Your task to perform on an android device: clear history in the chrome app Image 0: 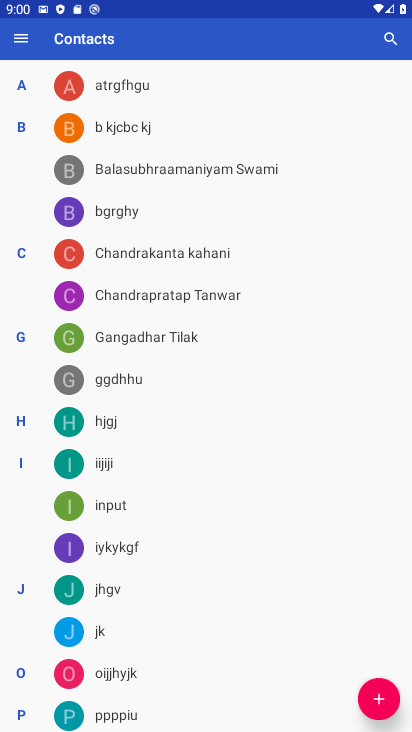
Step 0: press home button
Your task to perform on an android device: clear history in the chrome app Image 1: 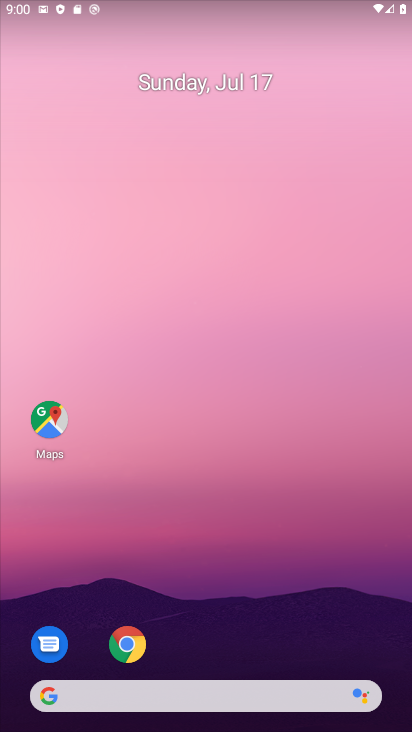
Step 1: drag from (206, 663) to (406, 596)
Your task to perform on an android device: clear history in the chrome app Image 2: 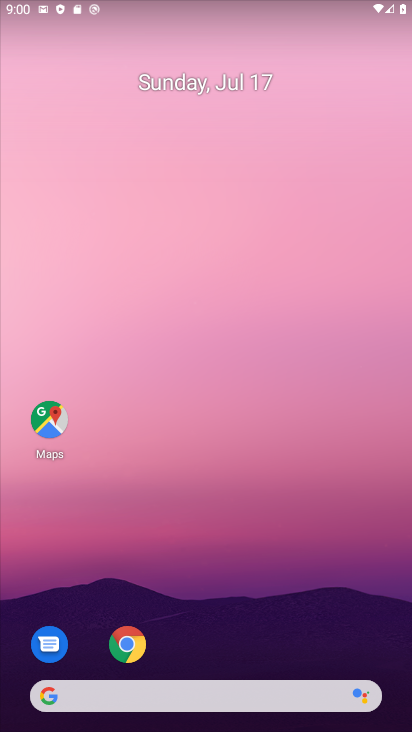
Step 2: drag from (166, 669) to (289, 375)
Your task to perform on an android device: clear history in the chrome app Image 3: 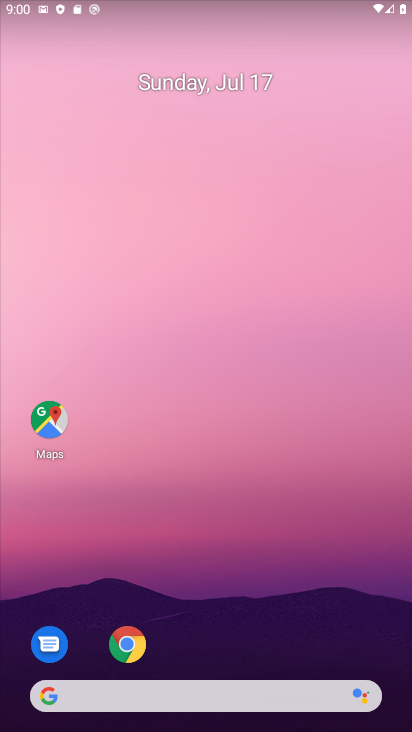
Step 3: click (133, 638)
Your task to perform on an android device: clear history in the chrome app Image 4: 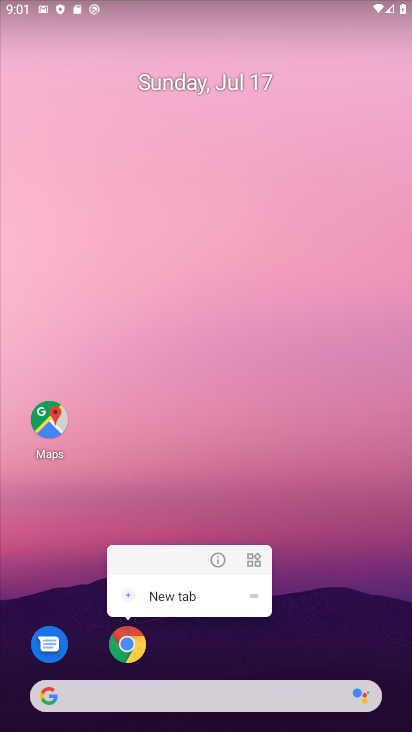
Step 4: click (233, 664)
Your task to perform on an android device: clear history in the chrome app Image 5: 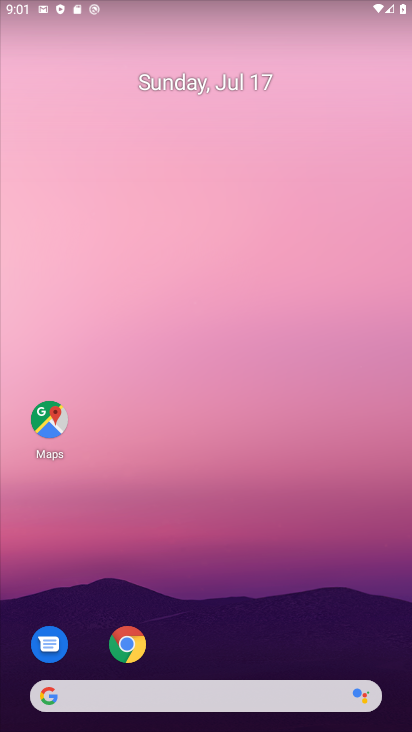
Step 5: drag from (233, 664) to (174, 50)
Your task to perform on an android device: clear history in the chrome app Image 6: 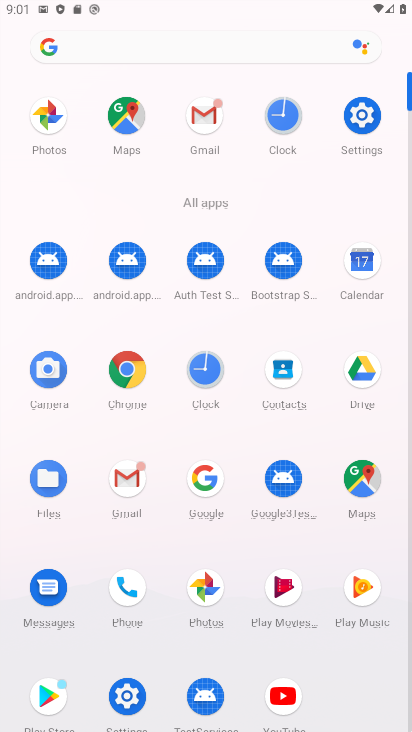
Step 6: click (110, 387)
Your task to perform on an android device: clear history in the chrome app Image 7: 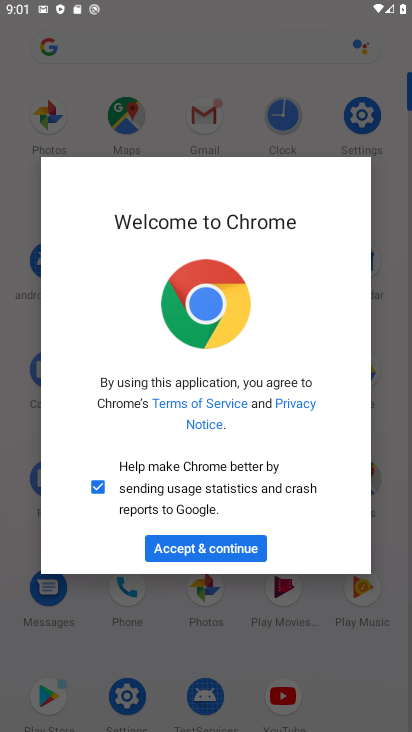
Step 7: click (166, 553)
Your task to perform on an android device: clear history in the chrome app Image 8: 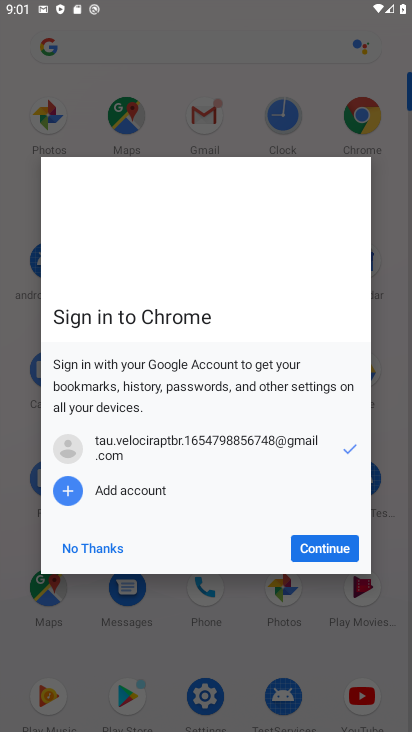
Step 8: click (327, 548)
Your task to perform on an android device: clear history in the chrome app Image 9: 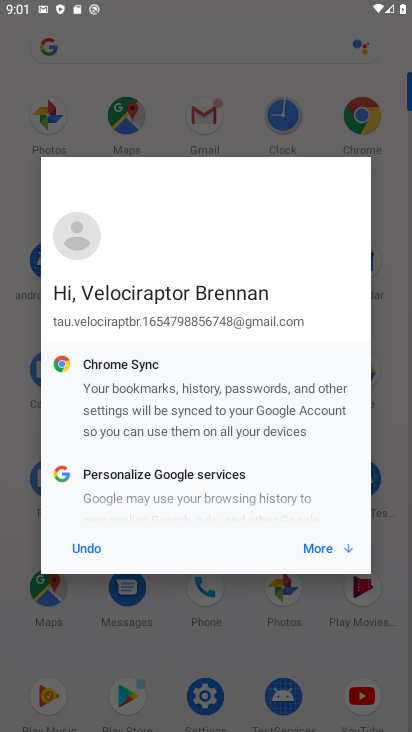
Step 9: click (311, 554)
Your task to perform on an android device: clear history in the chrome app Image 10: 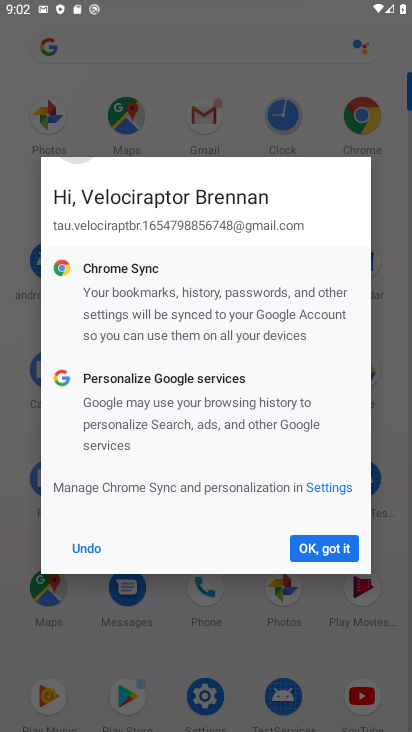
Step 10: click (338, 559)
Your task to perform on an android device: clear history in the chrome app Image 11: 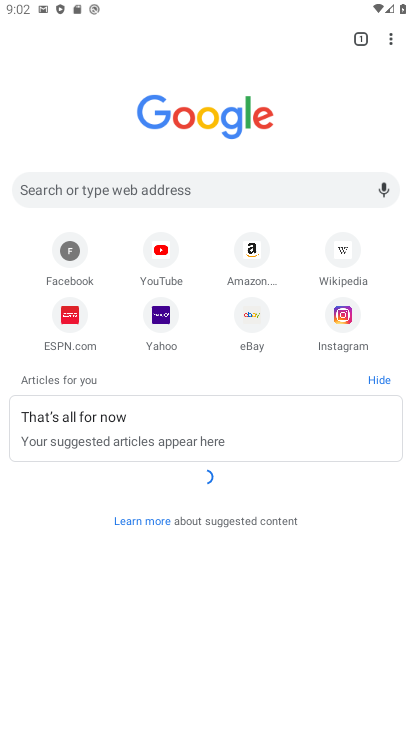
Step 11: drag from (392, 38) to (239, 218)
Your task to perform on an android device: clear history in the chrome app Image 12: 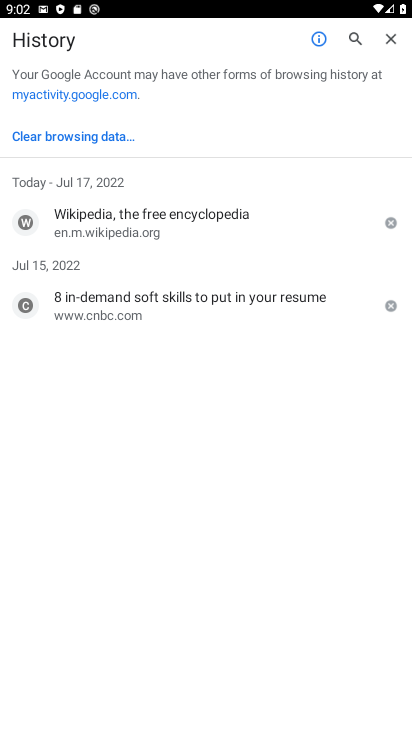
Step 12: click (53, 139)
Your task to perform on an android device: clear history in the chrome app Image 13: 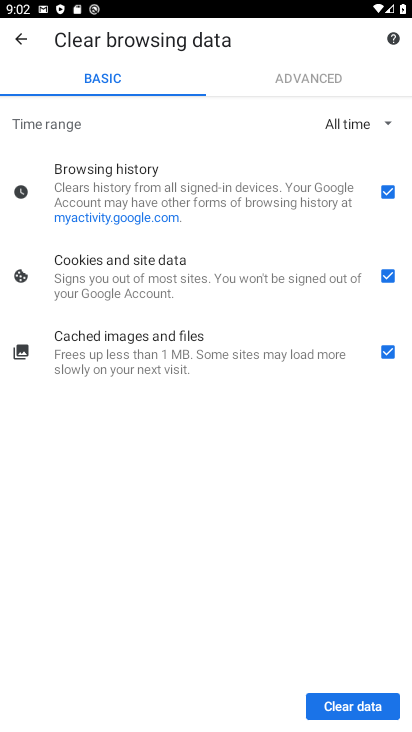
Step 13: click (355, 708)
Your task to perform on an android device: clear history in the chrome app Image 14: 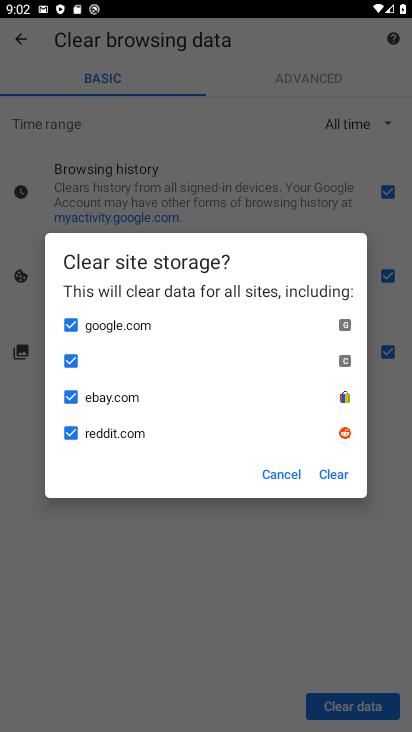
Step 14: click (336, 470)
Your task to perform on an android device: clear history in the chrome app Image 15: 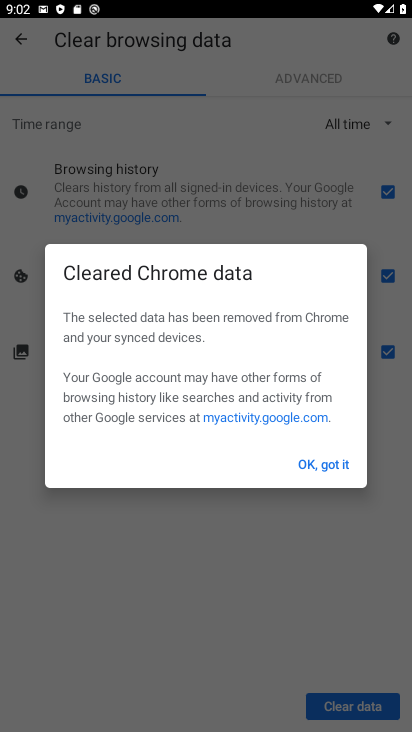
Step 15: click (313, 468)
Your task to perform on an android device: clear history in the chrome app Image 16: 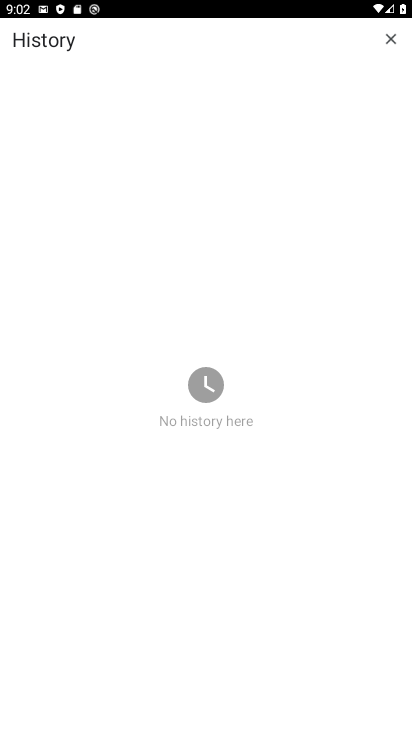
Step 16: task complete